Your task to perform on an android device: open device folders in google photos Image 0: 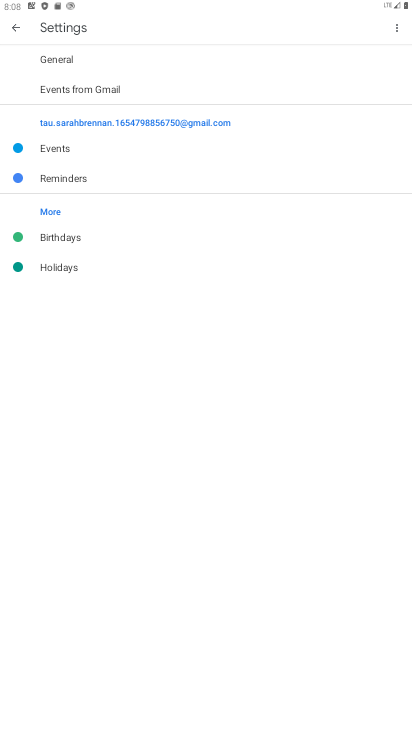
Step 0: press home button
Your task to perform on an android device: open device folders in google photos Image 1: 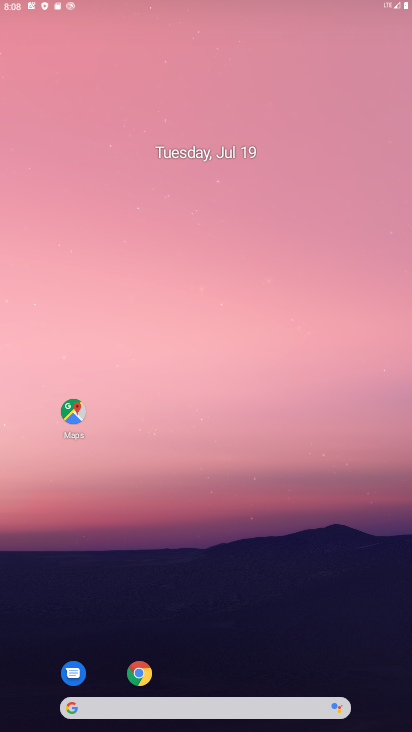
Step 1: drag from (403, 706) to (235, 57)
Your task to perform on an android device: open device folders in google photos Image 2: 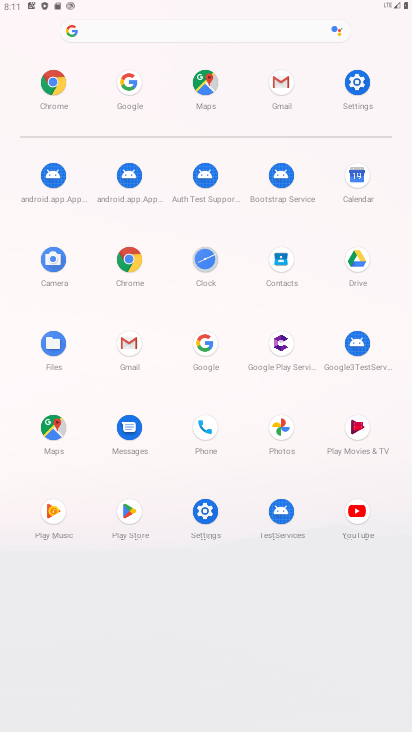
Step 2: click (275, 425)
Your task to perform on an android device: open device folders in google photos Image 3: 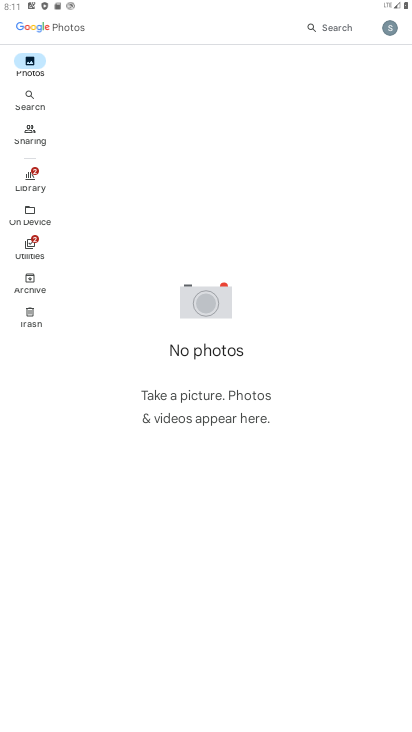
Step 3: task complete